Your task to perform on an android device: turn off picture-in-picture Image 0: 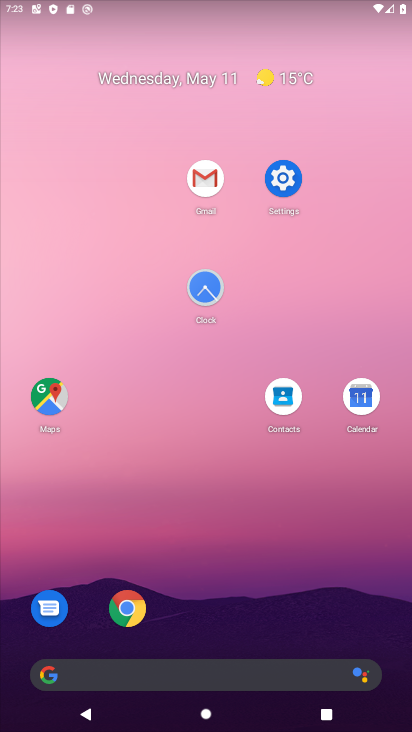
Step 0: click (139, 618)
Your task to perform on an android device: turn off picture-in-picture Image 1: 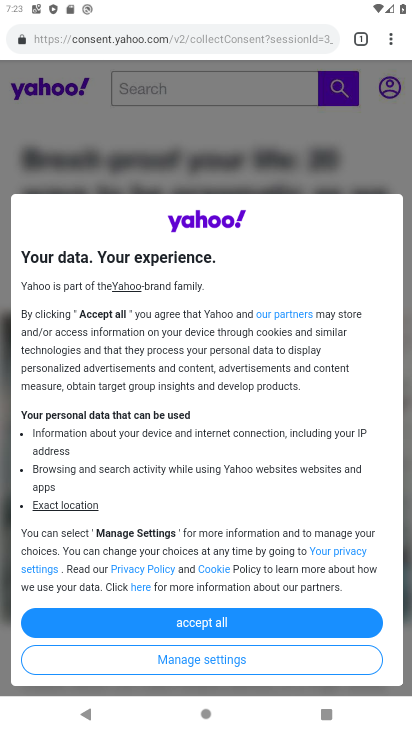
Step 1: click (260, 611)
Your task to perform on an android device: turn off picture-in-picture Image 2: 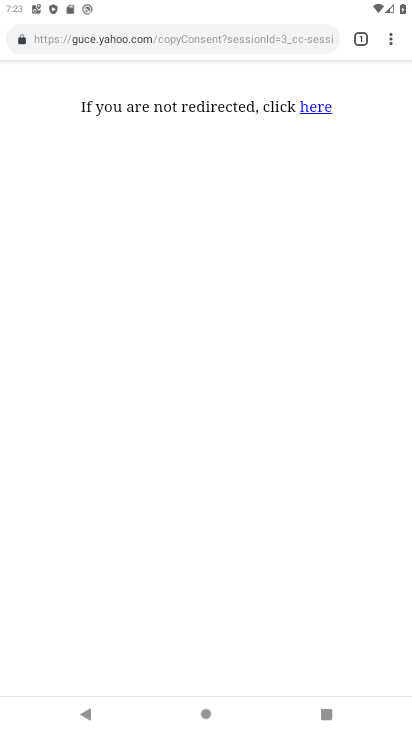
Step 2: click (382, 47)
Your task to perform on an android device: turn off picture-in-picture Image 3: 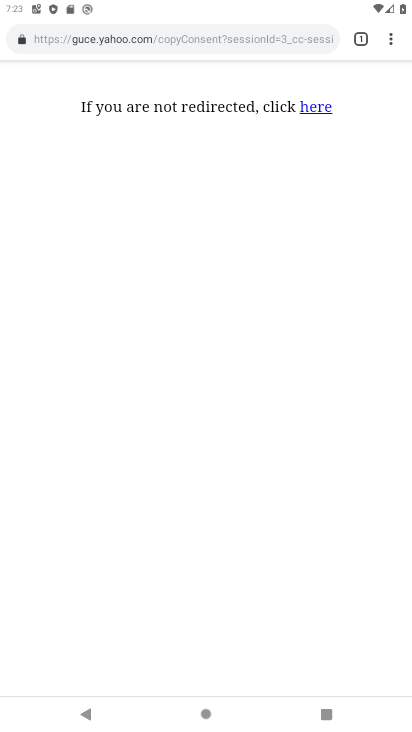
Step 3: click (391, 38)
Your task to perform on an android device: turn off picture-in-picture Image 4: 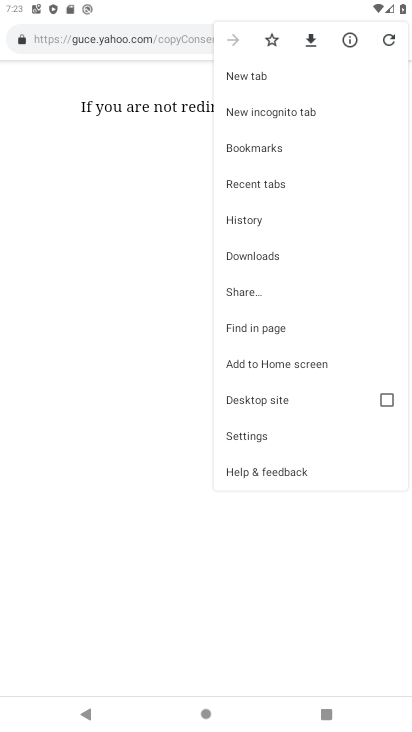
Step 4: click (260, 426)
Your task to perform on an android device: turn off picture-in-picture Image 5: 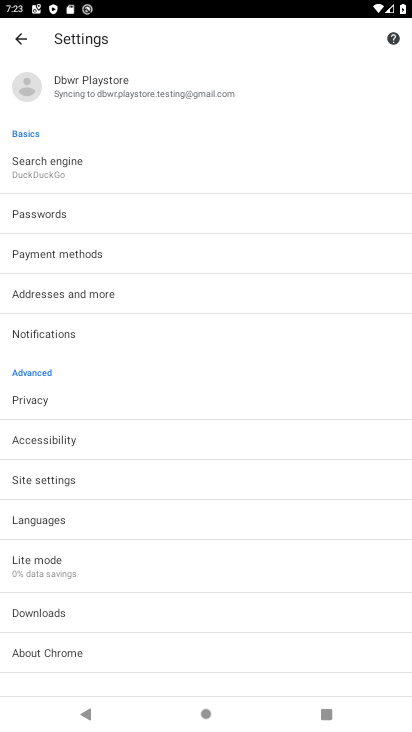
Step 5: drag from (85, 631) to (129, 497)
Your task to perform on an android device: turn off picture-in-picture Image 6: 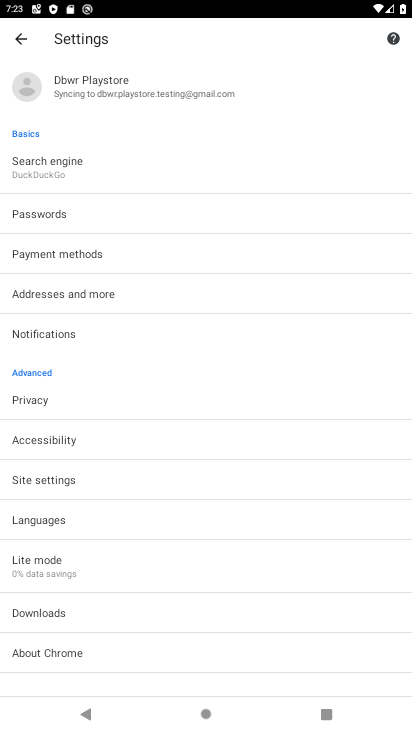
Step 6: click (133, 485)
Your task to perform on an android device: turn off picture-in-picture Image 7: 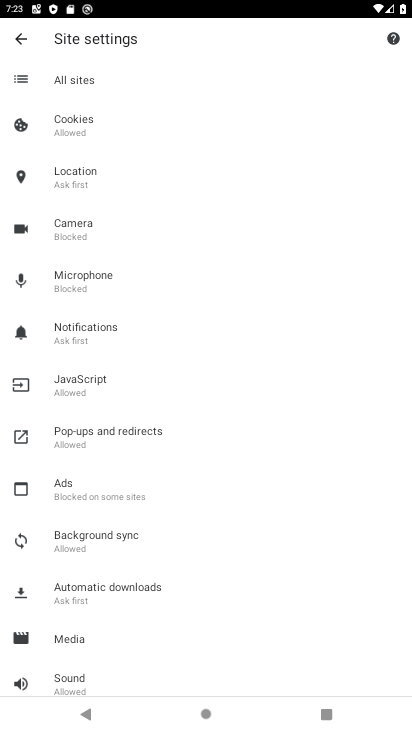
Step 7: drag from (158, 571) to (188, 343)
Your task to perform on an android device: turn off picture-in-picture Image 8: 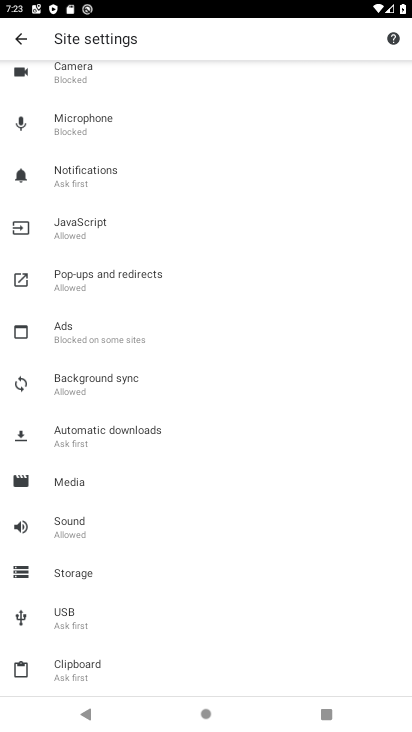
Step 8: drag from (189, 614) to (221, 292)
Your task to perform on an android device: turn off picture-in-picture Image 9: 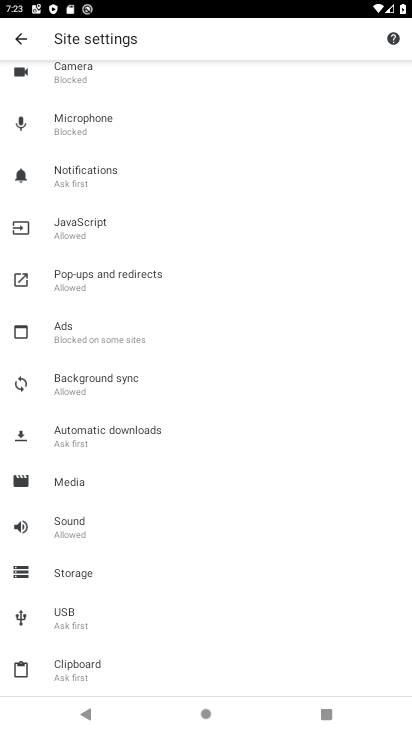
Step 9: press home button
Your task to perform on an android device: turn off picture-in-picture Image 10: 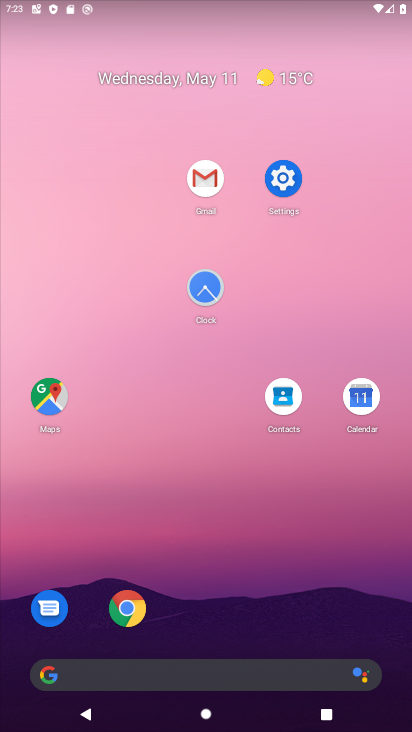
Step 10: click (287, 205)
Your task to perform on an android device: turn off picture-in-picture Image 11: 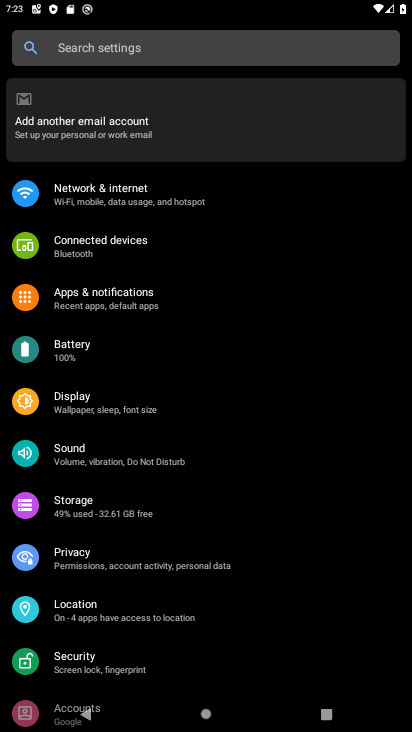
Step 11: drag from (188, 531) to (203, 184)
Your task to perform on an android device: turn off picture-in-picture Image 12: 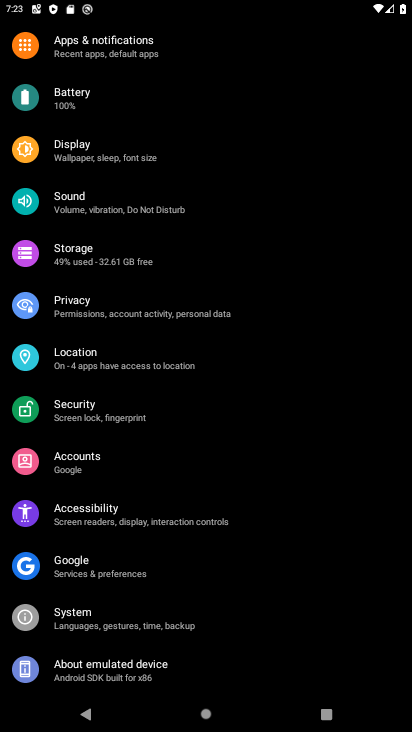
Step 12: drag from (159, 200) to (144, 579)
Your task to perform on an android device: turn off picture-in-picture Image 13: 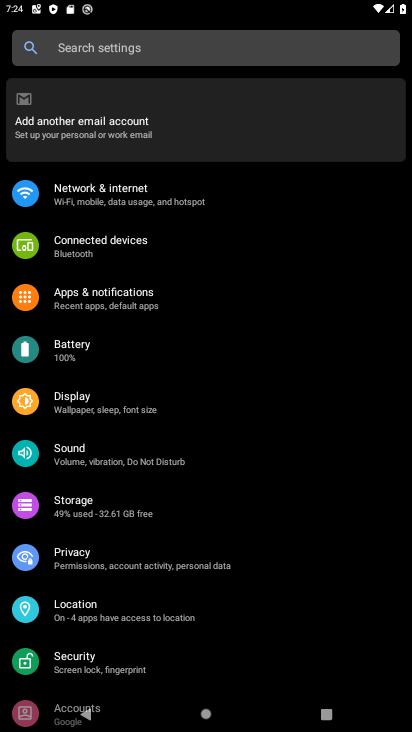
Step 13: click (134, 309)
Your task to perform on an android device: turn off picture-in-picture Image 14: 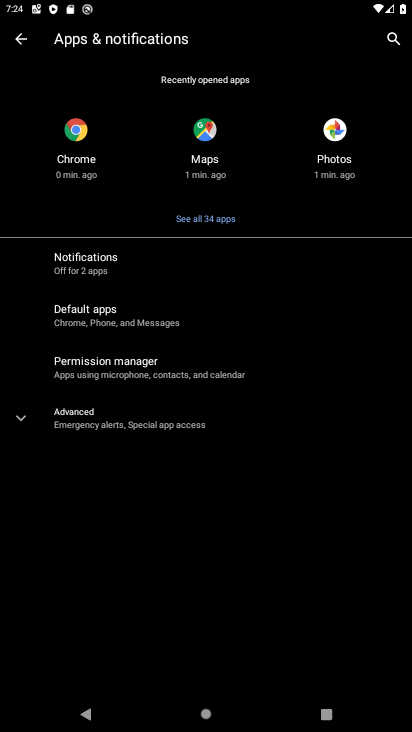
Step 14: click (140, 417)
Your task to perform on an android device: turn off picture-in-picture Image 15: 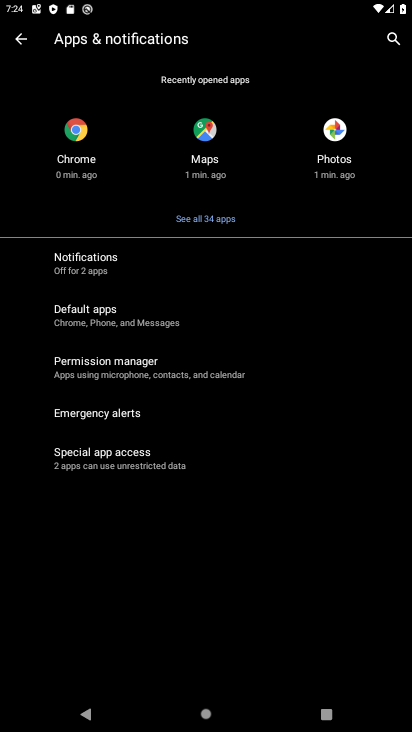
Step 15: click (140, 446)
Your task to perform on an android device: turn off picture-in-picture Image 16: 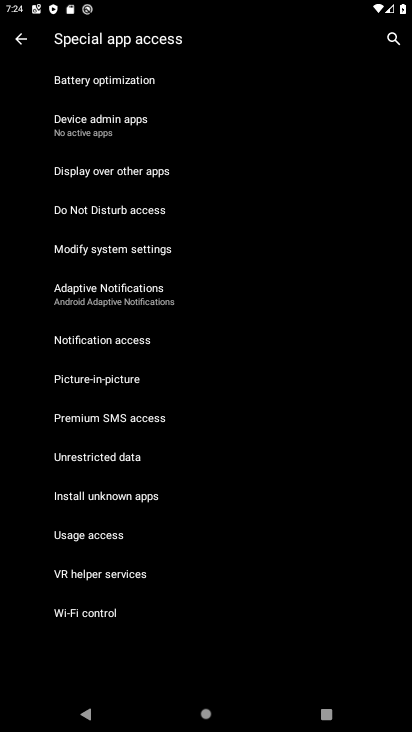
Step 16: click (150, 374)
Your task to perform on an android device: turn off picture-in-picture Image 17: 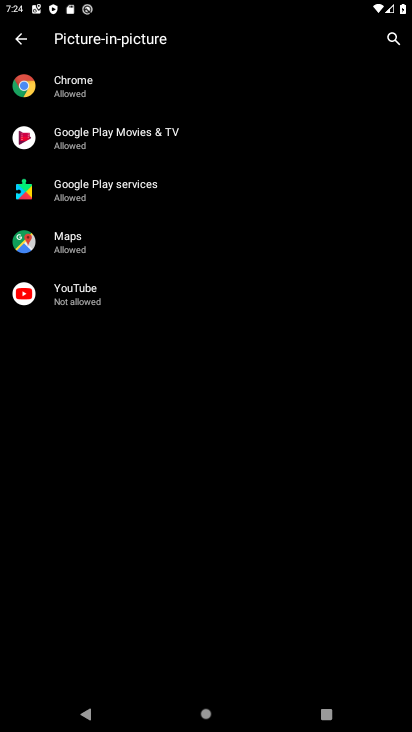
Step 17: click (157, 107)
Your task to perform on an android device: turn off picture-in-picture Image 18: 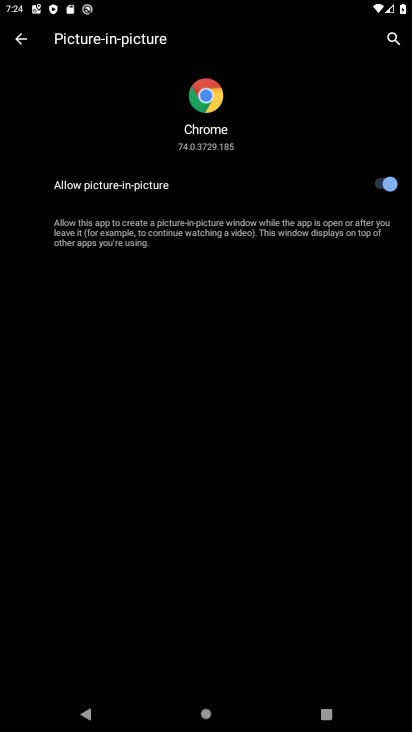
Step 18: click (372, 171)
Your task to perform on an android device: turn off picture-in-picture Image 19: 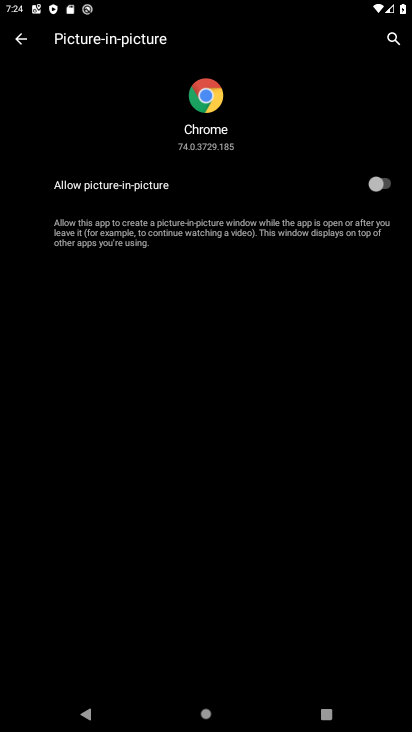
Step 19: task complete